Your task to perform on an android device: see tabs open on other devices in the chrome app Image 0: 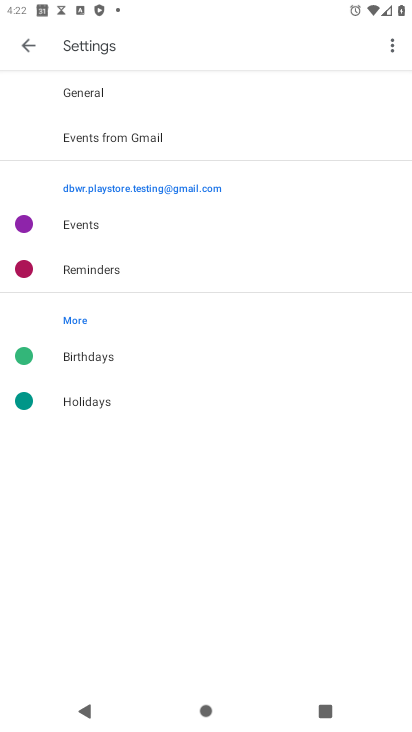
Step 0: press home button
Your task to perform on an android device: see tabs open on other devices in the chrome app Image 1: 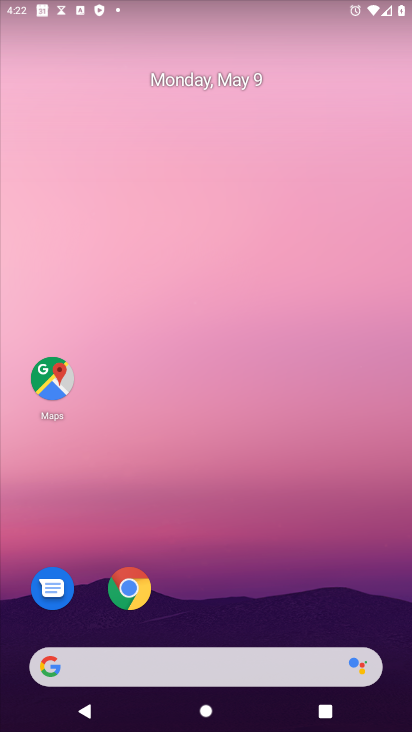
Step 1: drag from (262, 607) to (170, 84)
Your task to perform on an android device: see tabs open on other devices in the chrome app Image 2: 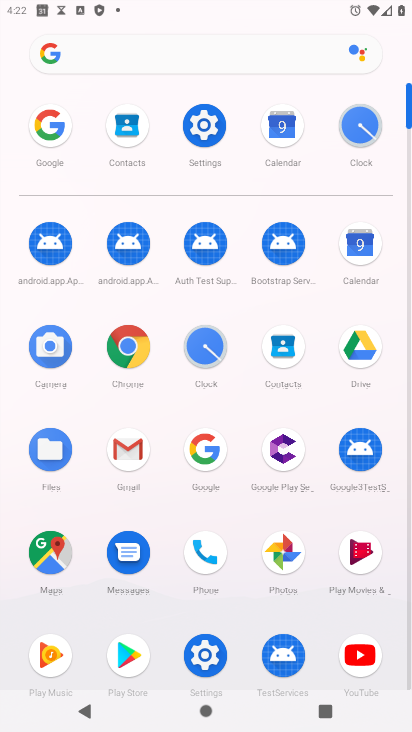
Step 2: click (205, 120)
Your task to perform on an android device: see tabs open on other devices in the chrome app Image 3: 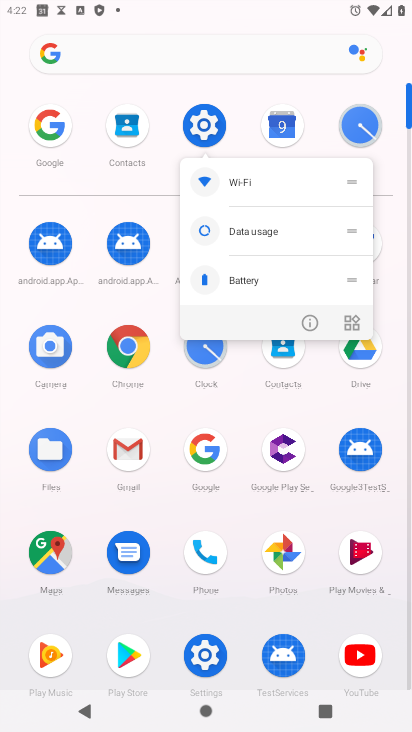
Step 3: click (201, 122)
Your task to perform on an android device: see tabs open on other devices in the chrome app Image 4: 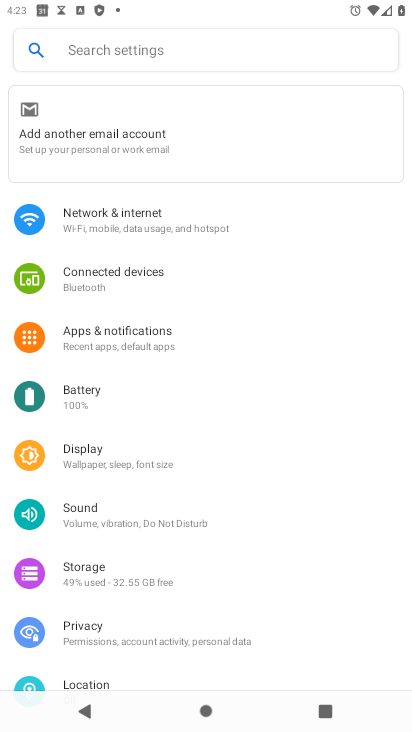
Step 4: press home button
Your task to perform on an android device: see tabs open on other devices in the chrome app Image 5: 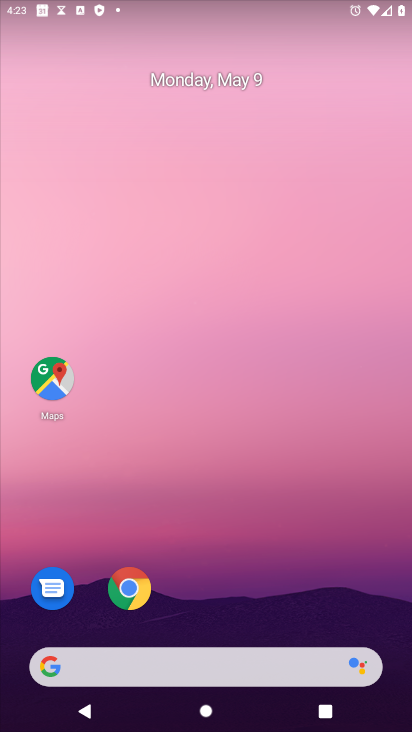
Step 5: click (136, 584)
Your task to perform on an android device: see tabs open on other devices in the chrome app Image 6: 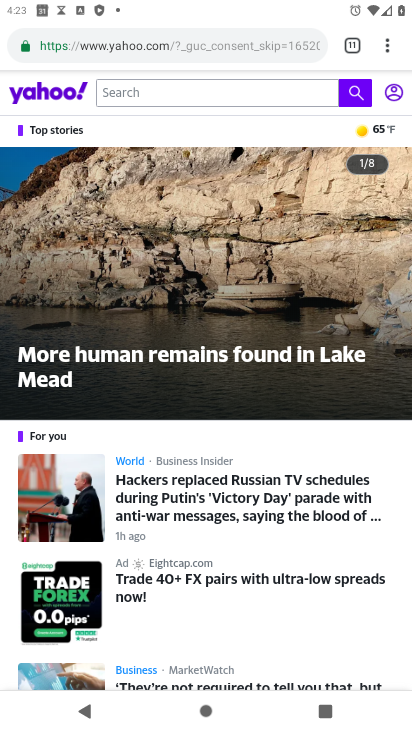
Step 6: click (385, 46)
Your task to perform on an android device: see tabs open on other devices in the chrome app Image 7: 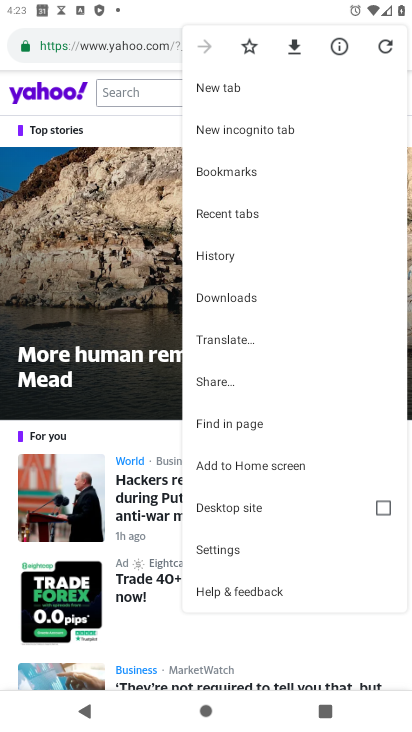
Step 7: click (233, 213)
Your task to perform on an android device: see tabs open on other devices in the chrome app Image 8: 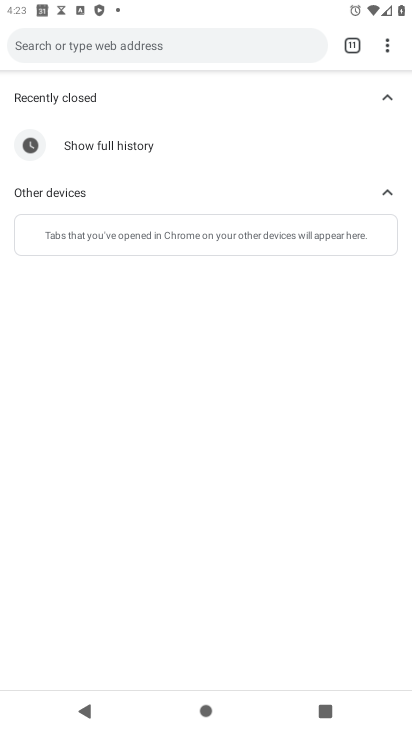
Step 8: task complete